Your task to perform on an android device: What is the recent news? Image 0: 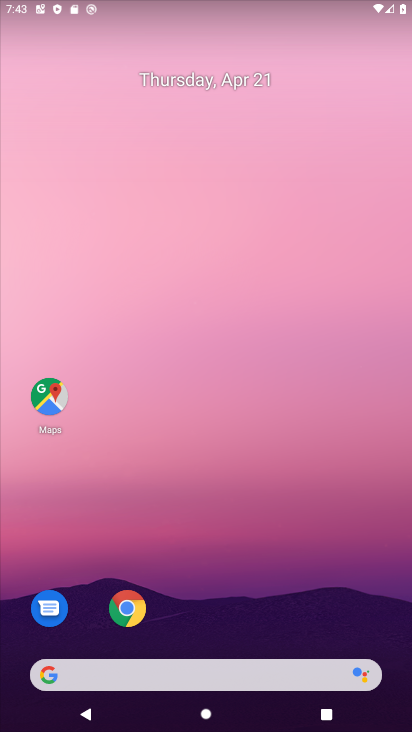
Step 0: click (249, 661)
Your task to perform on an android device: What is the recent news? Image 1: 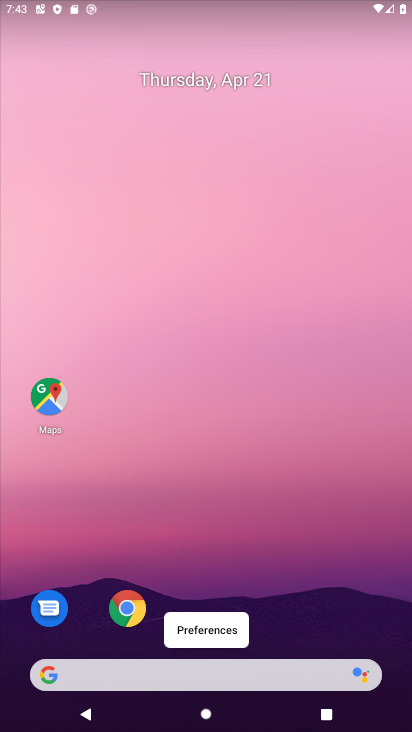
Step 1: click (240, 680)
Your task to perform on an android device: What is the recent news? Image 2: 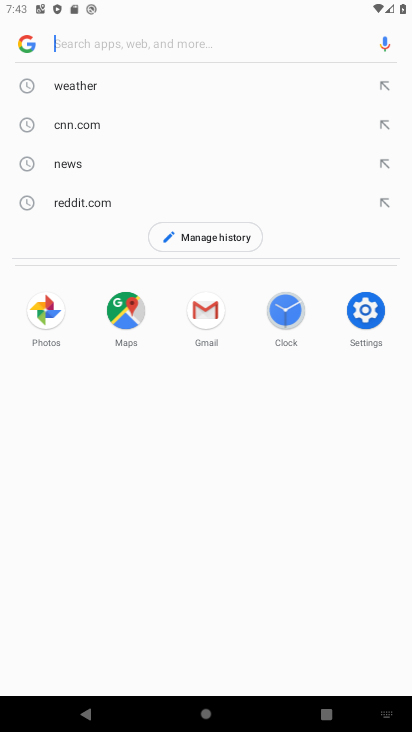
Step 2: type "recent news"
Your task to perform on an android device: What is the recent news? Image 3: 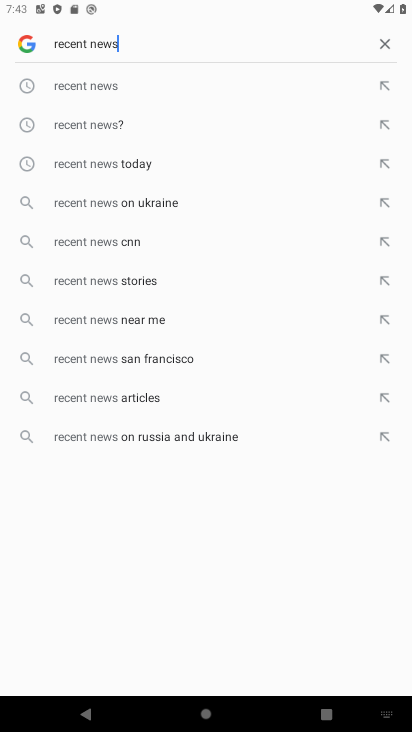
Step 3: click (99, 87)
Your task to perform on an android device: What is the recent news? Image 4: 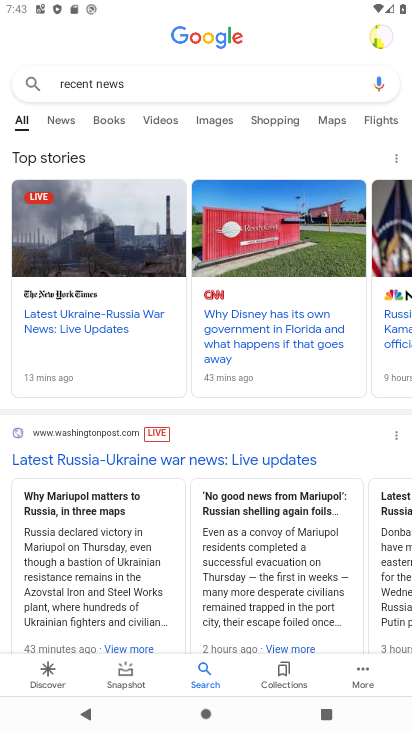
Step 4: task complete